Your task to perform on an android device: Open settings Image 0: 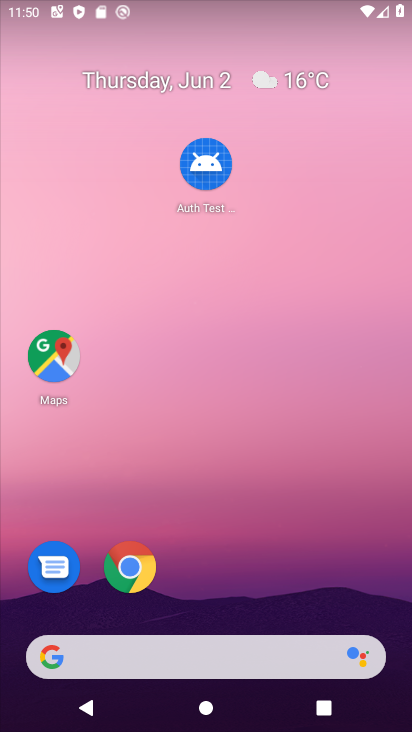
Step 0: drag from (184, 617) to (229, 16)
Your task to perform on an android device: Open settings Image 1: 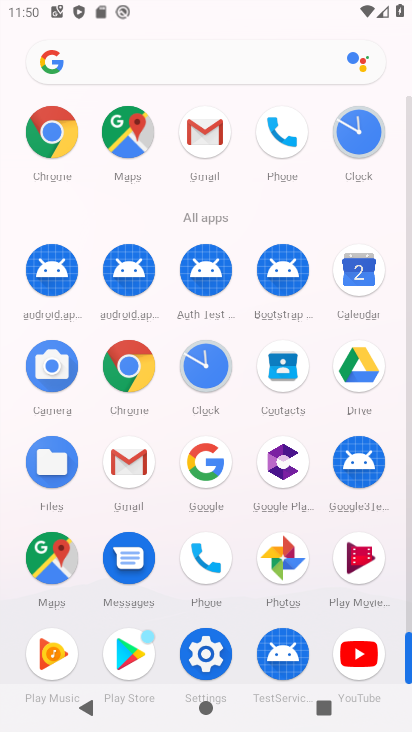
Step 1: click (210, 652)
Your task to perform on an android device: Open settings Image 2: 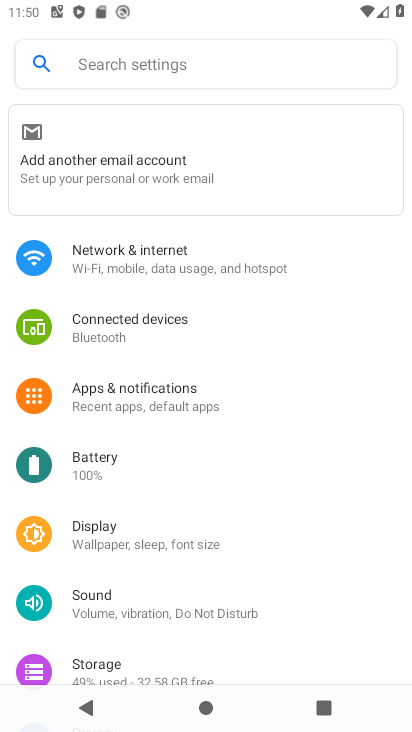
Step 2: task complete